Your task to perform on an android device: all mails in gmail Image 0: 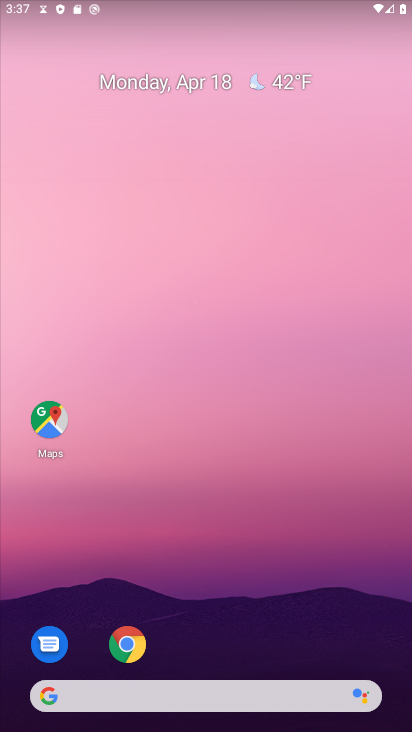
Step 0: drag from (255, 610) to (289, 55)
Your task to perform on an android device: all mails in gmail Image 1: 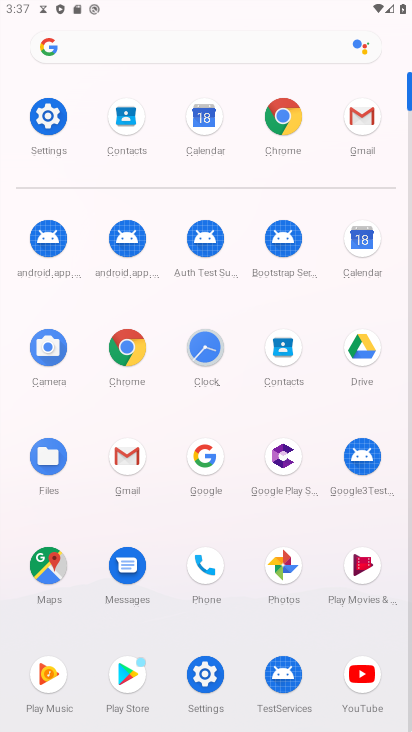
Step 1: click (356, 123)
Your task to perform on an android device: all mails in gmail Image 2: 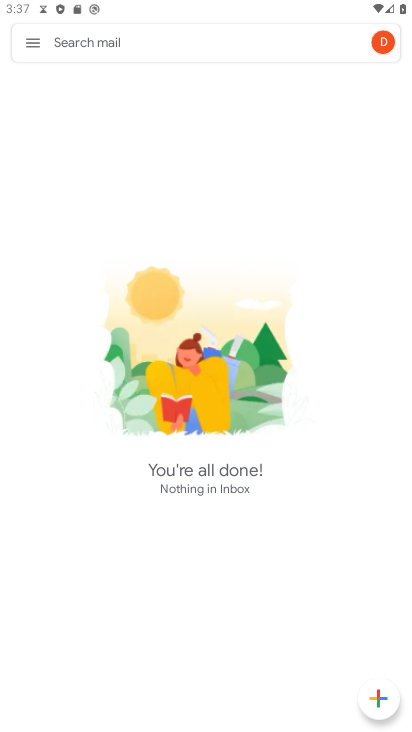
Step 2: click (34, 42)
Your task to perform on an android device: all mails in gmail Image 3: 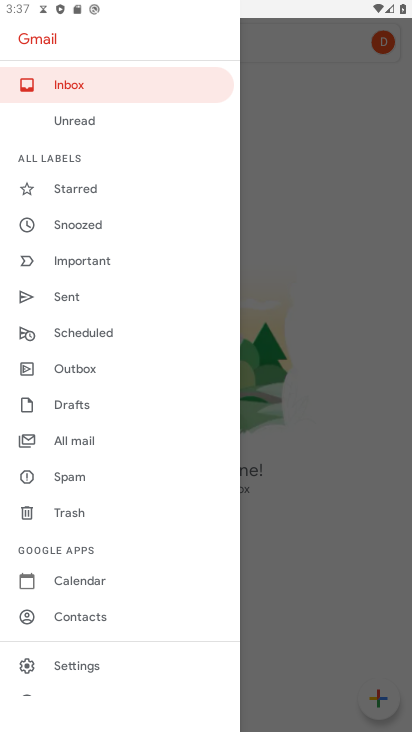
Step 3: click (76, 441)
Your task to perform on an android device: all mails in gmail Image 4: 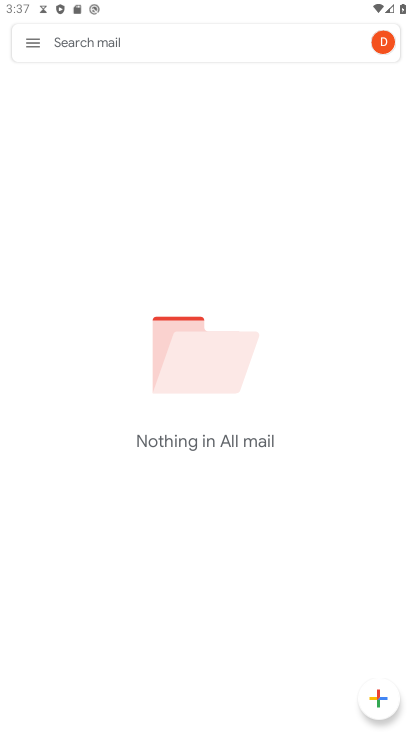
Step 4: task complete